Your task to perform on an android device: Go to Yahoo.com Image 0: 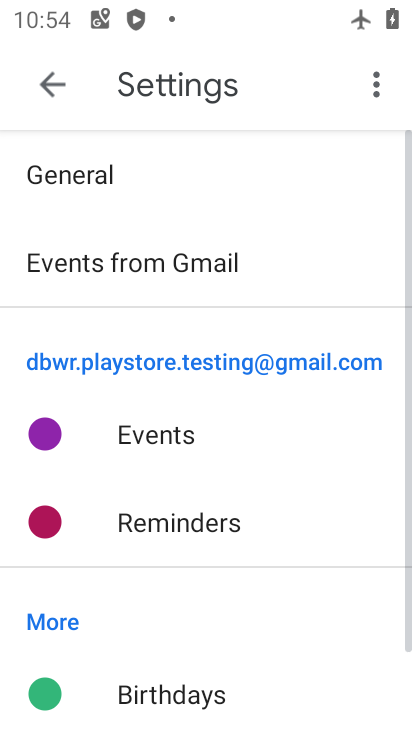
Step 0: press home button
Your task to perform on an android device: Go to Yahoo.com Image 1: 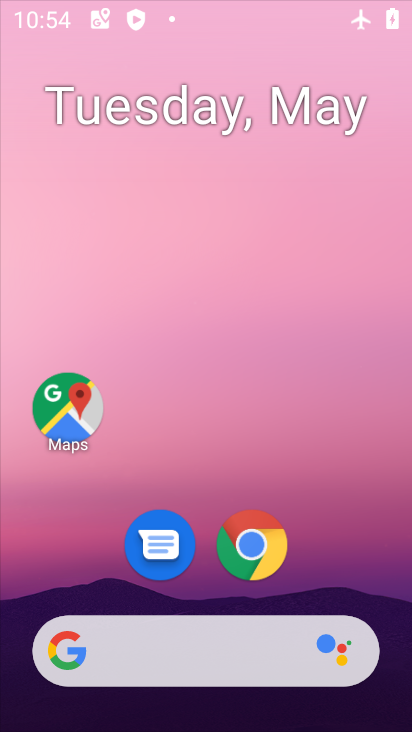
Step 1: drag from (245, 560) to (357, 343)
Your task to perform on an android device: Go to Yahoo.com Image 2: 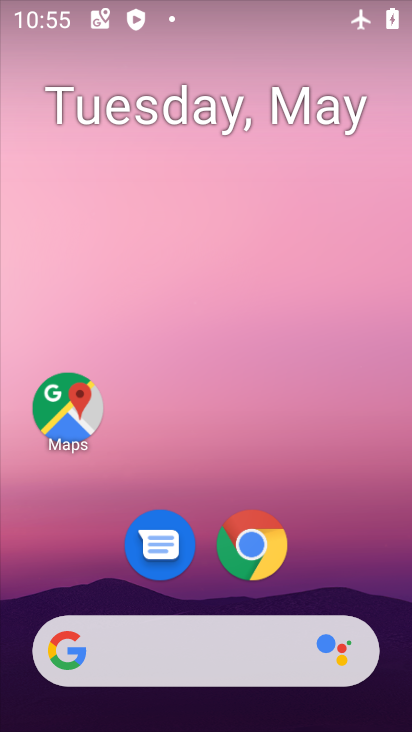
Step 2: click (254, 539)
Your task to perform on an android device: Go to Yahoo.com Image 3: 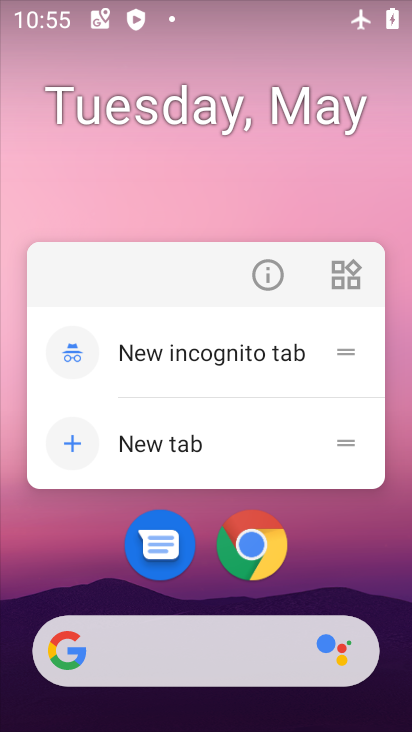
Step 3: click (253, 569)
Your task to perform on an android device: Go to Yahoo.com Image 4: 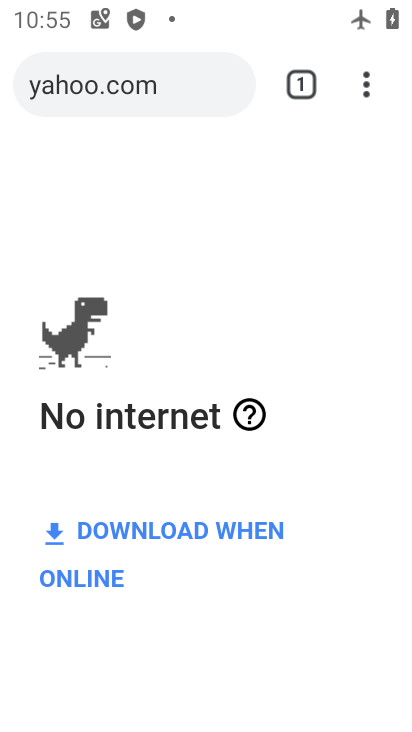
Step 4: task complete